Your task to perform on an android device: Open Chrome and go to the settings page Image 0: 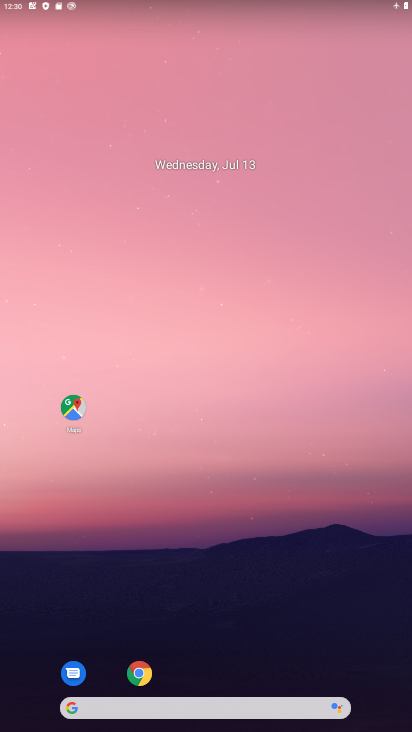
Step 0: click (144, 671)
Your task to perform on an android device: Open Chrome and go to the settings page Image 1: 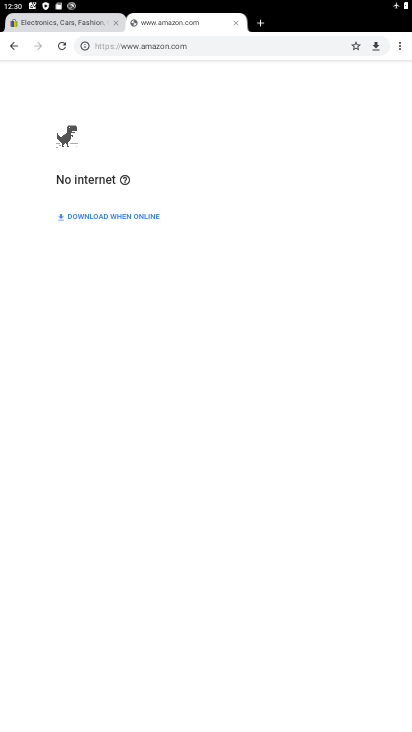
Step 1: click (399, 47)
Your task to perform on an android device: Open Chrome and go to the settings page Image 2: 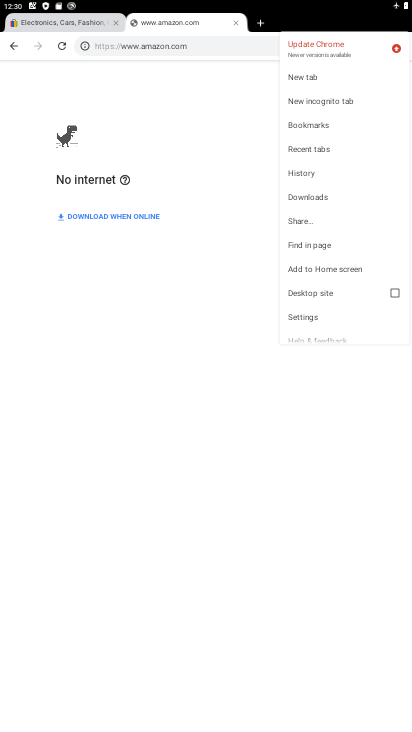
Step 2: click (300, 313)
Your task to perform on an android device: Open Chrome and go to the settings page Image 3: 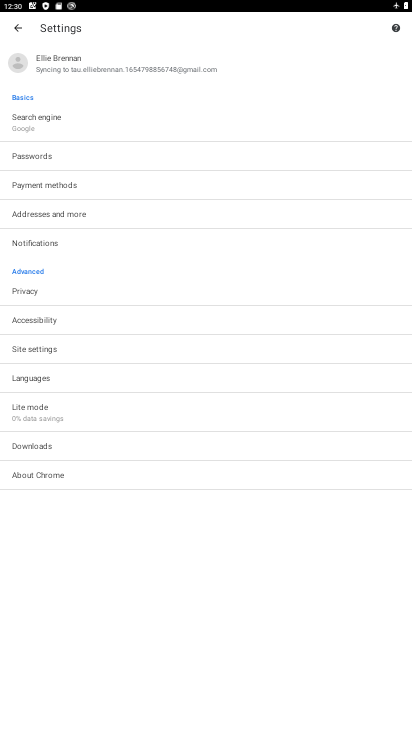
Step 3: task complete